Your task to perform on an android device: set an alarm Image 0: 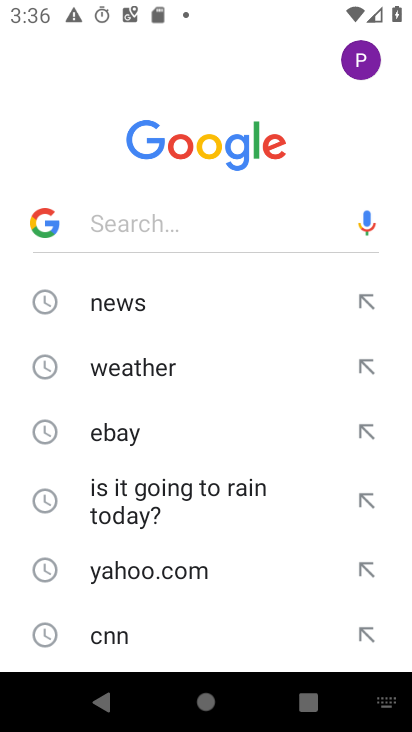
Step 0: press home button
Your task to perform on an android device: set an alarm Image 1: 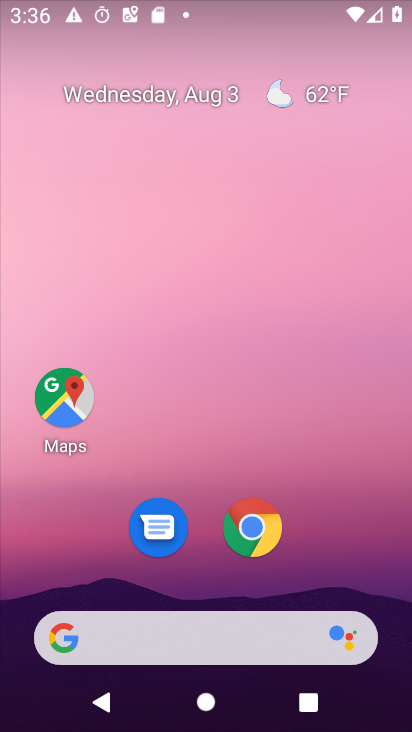
Step 1: drag from (334, 508) to (343, 45)
Your task to perform on an android device: set an alarm Image 2: 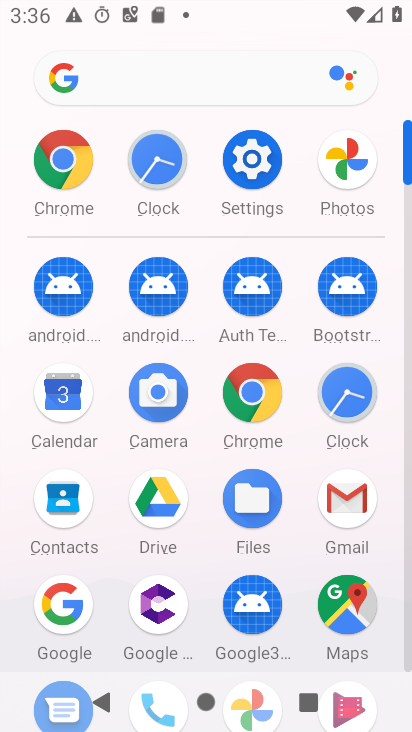
Step 2: click (352, 392)
Your task to perform on an android device: set an alarm Image 3: 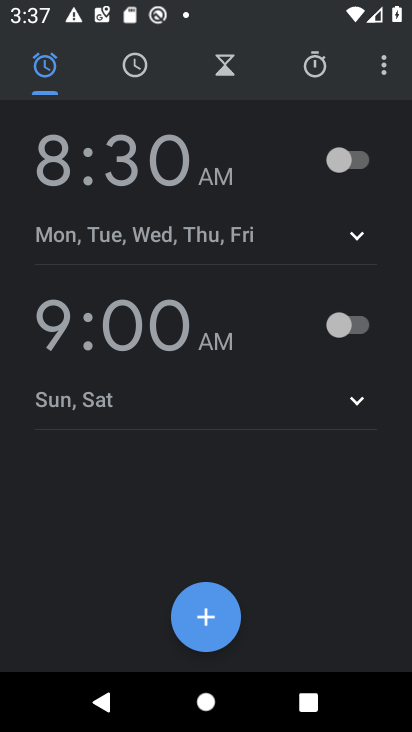
Step 3: click (223, 614)
Your task to perform on an android device: set an alarm Image 4: 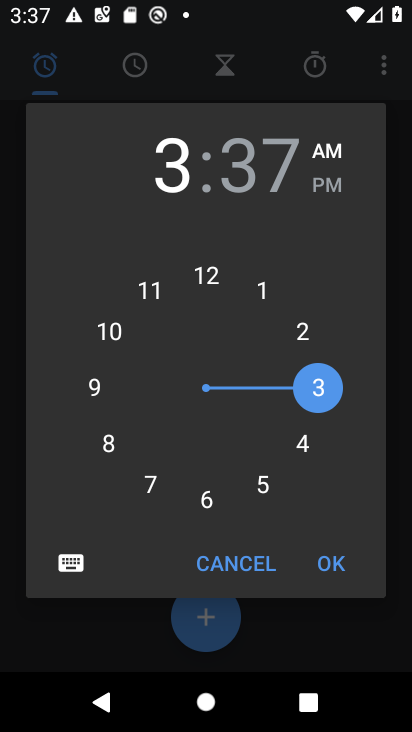
Step 4: click (321, 561)
Your task to perform on an android device: set an alarm Image 5: 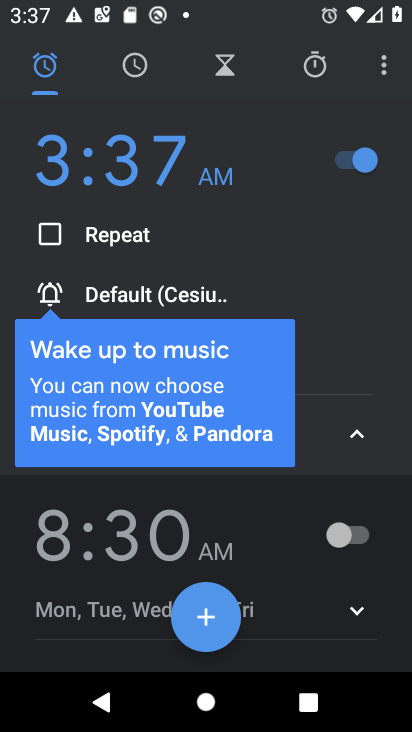
Step 5: task complete